Your task to perform on an android device: Go to ESPN.com Image 0: 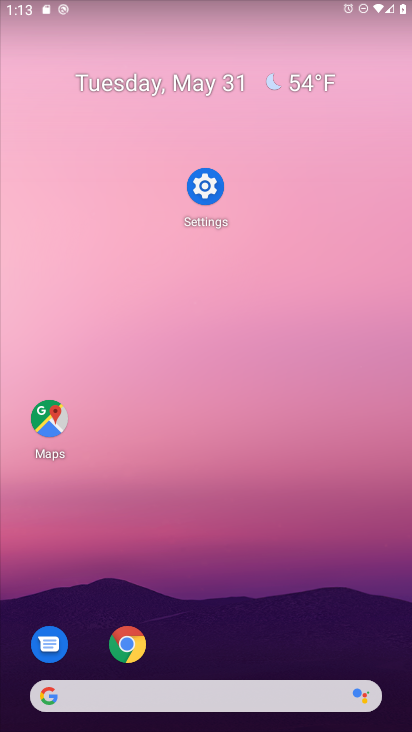
Step 0: press home button
Your task to perform on an android device: Go to ESPN.com Image 1: 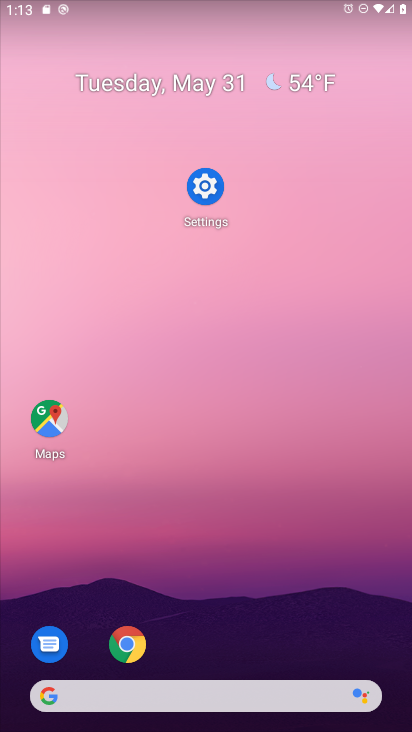
Step 1: click (47, 687)
Your task to perform on an android device: Go to ESPN.com Image 2: 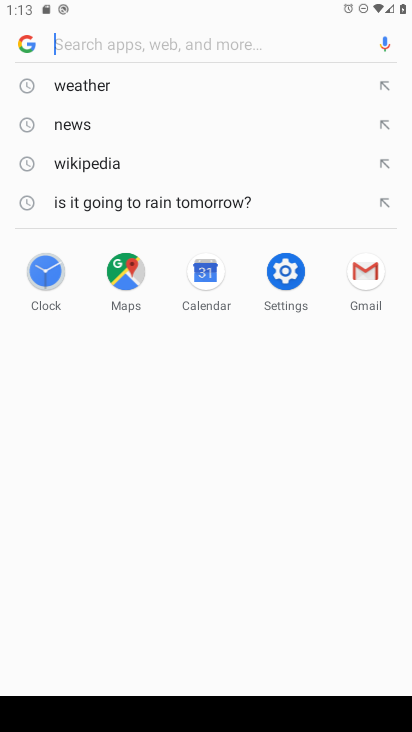
Step 2: type "ESPN.com"
Your task to perform on an android device: Go to ESPN.com Image 3: 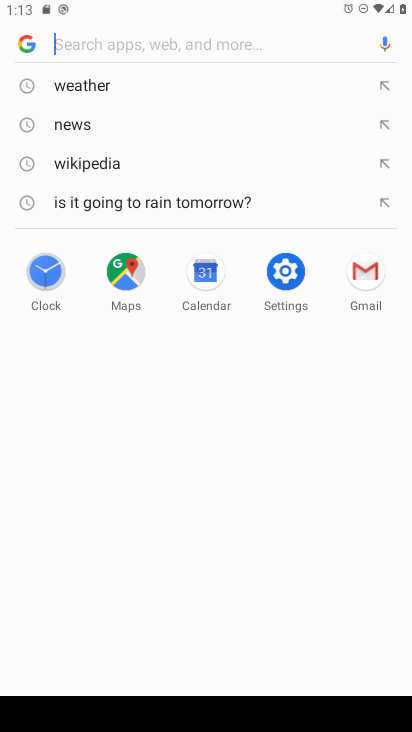
Step 3: click (170, 43)
Your task to perform on an android device: Go to ESPN.com Image 4: 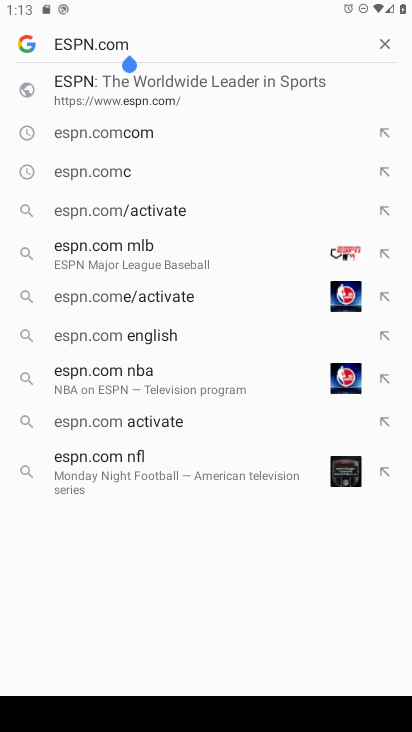
Step 4: click (77, 82)
Your task to perform on an android device: Go to ESPN.com Image 5: 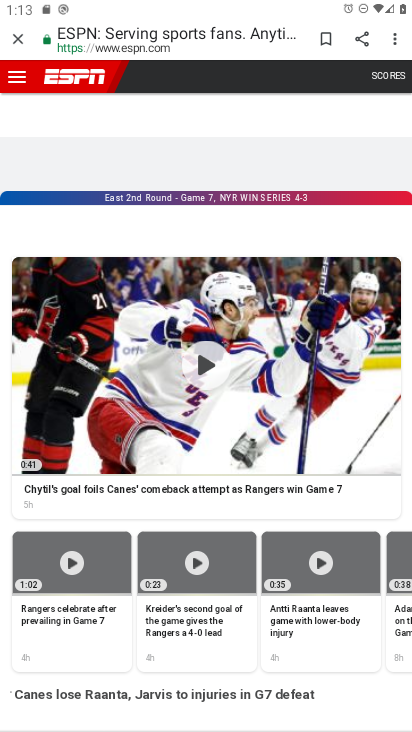
Step 5: task complete